Your task to perform on an android device: toggle pop-ups in chrome Image 0: 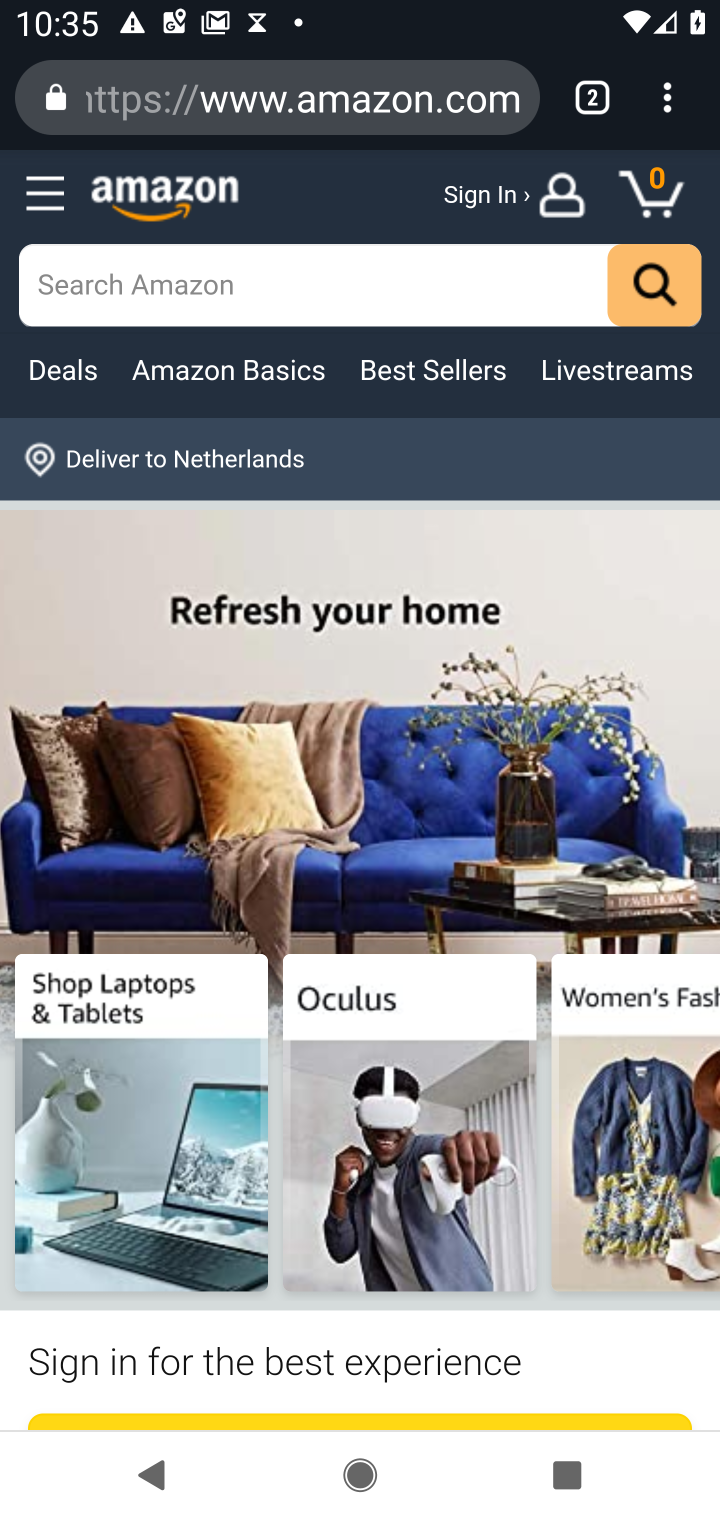
Step 0: click (661, 95)
Your task to perform on an android device: toggle pop-ups in chrome Image 1: 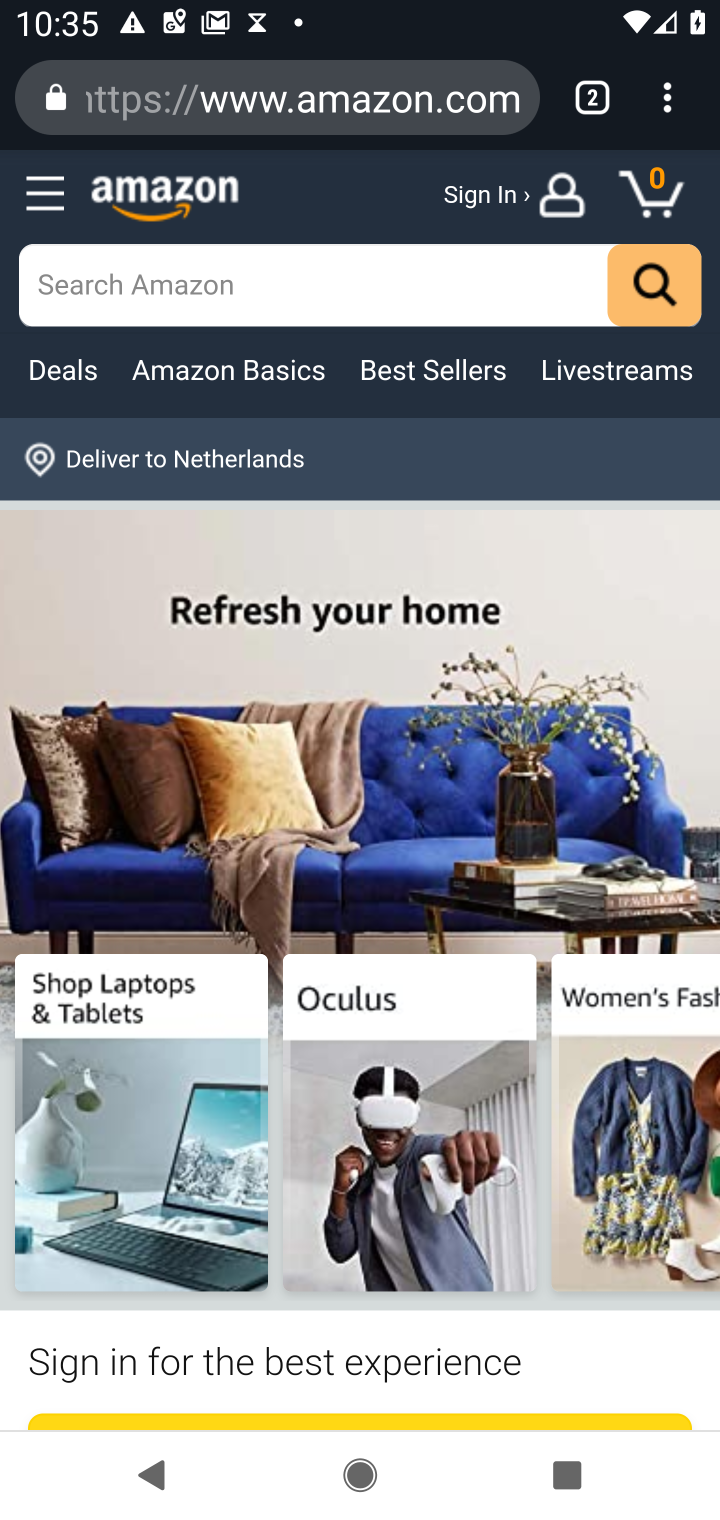
Step 1: click (672, 88)
Your task to perform on an android device: toggle pop-ups in chrome Image 2: 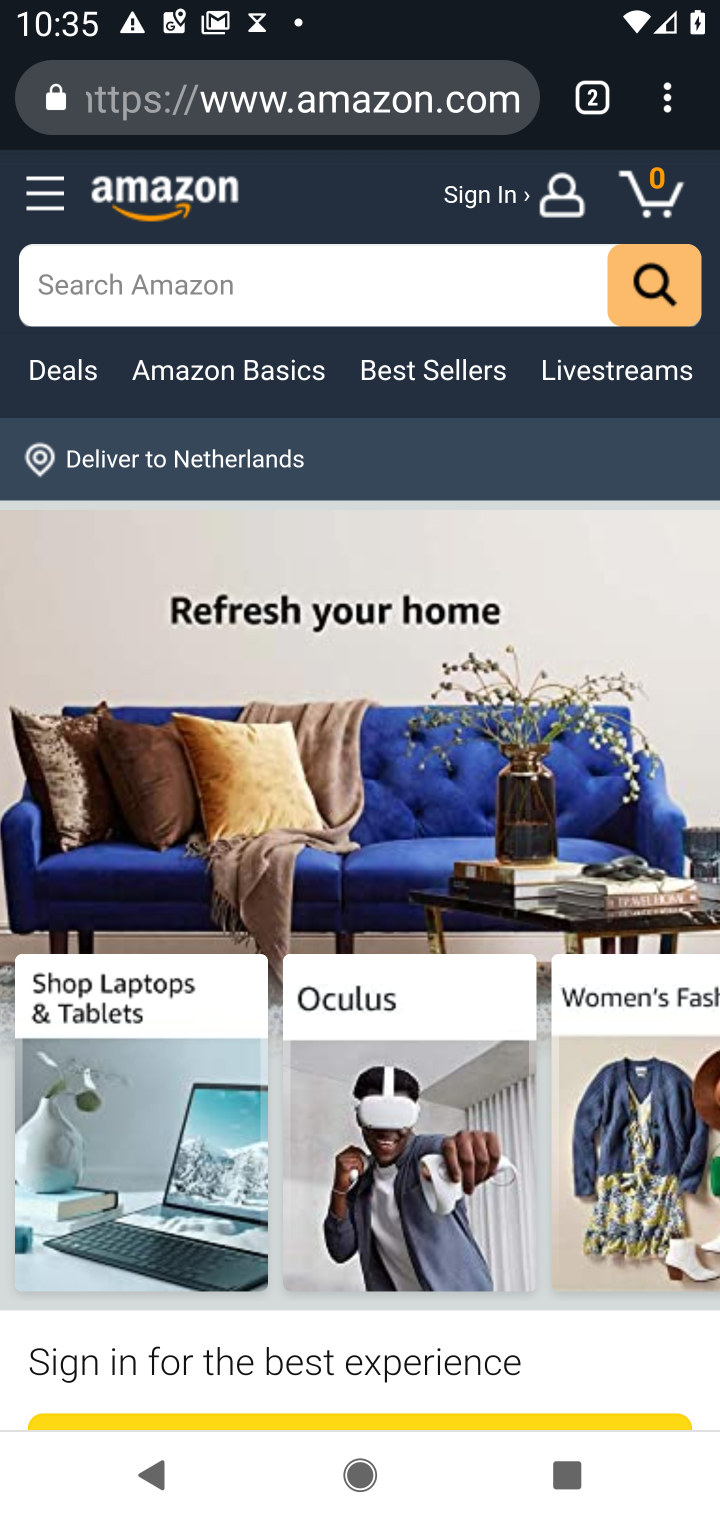
Step 2: drag from (683, 86) to (361, 1179)
Your task to perform on an android device: toggle pop-ups in chrome Image 3: 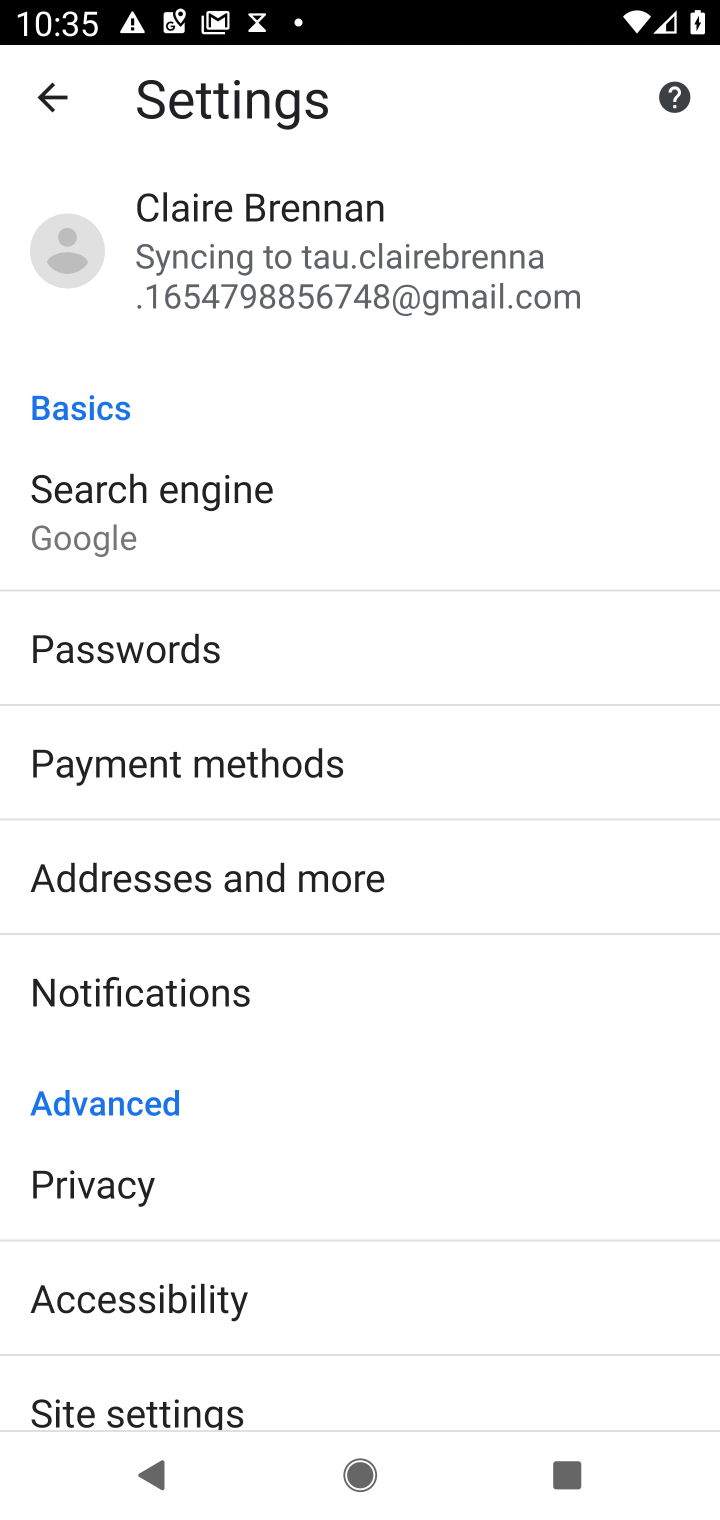
Step 3: click (352, 1382)
Your task to perform on an android device: toggle pop-ups in chrome Image 4: 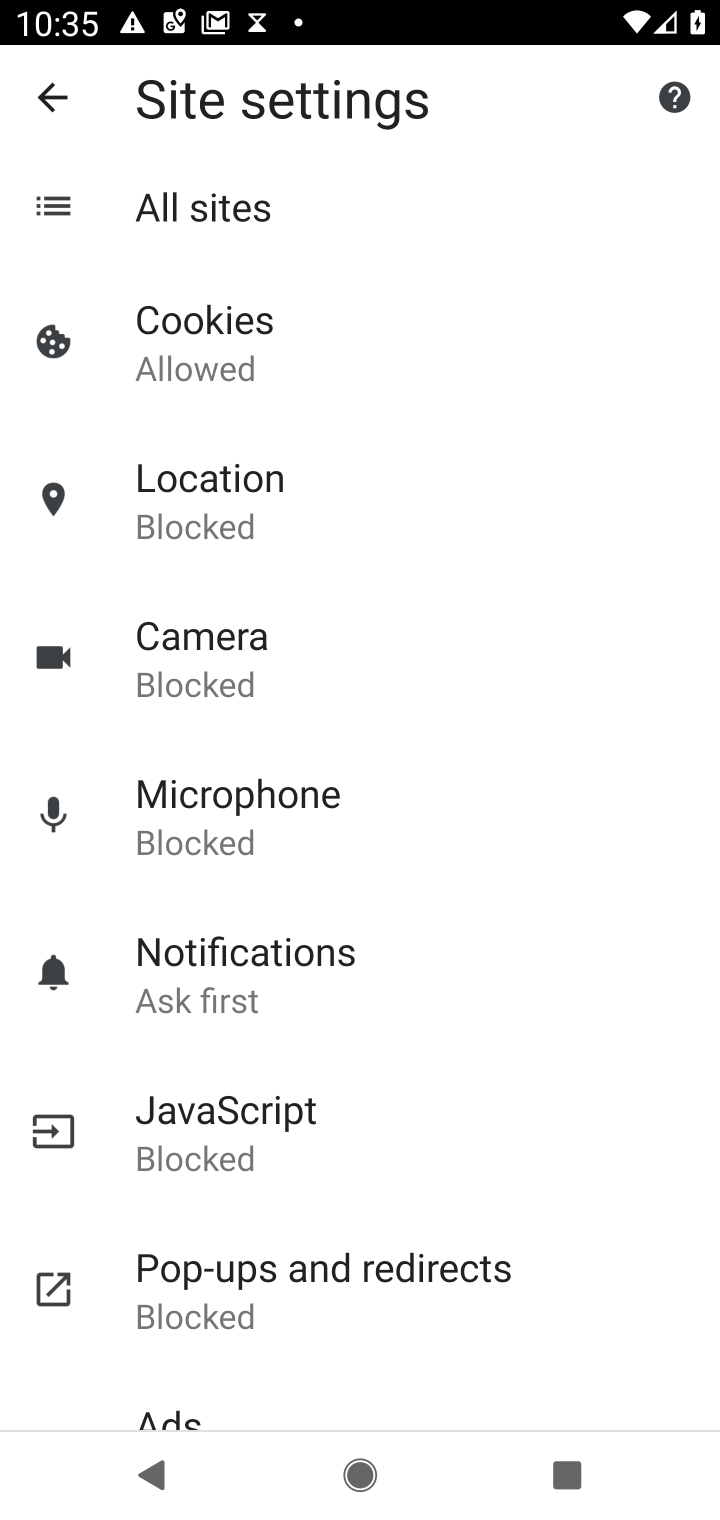
Step 4: click (341, 1254)
Your task to perform on an android device: toggle pop-ups in chrome Image 5: 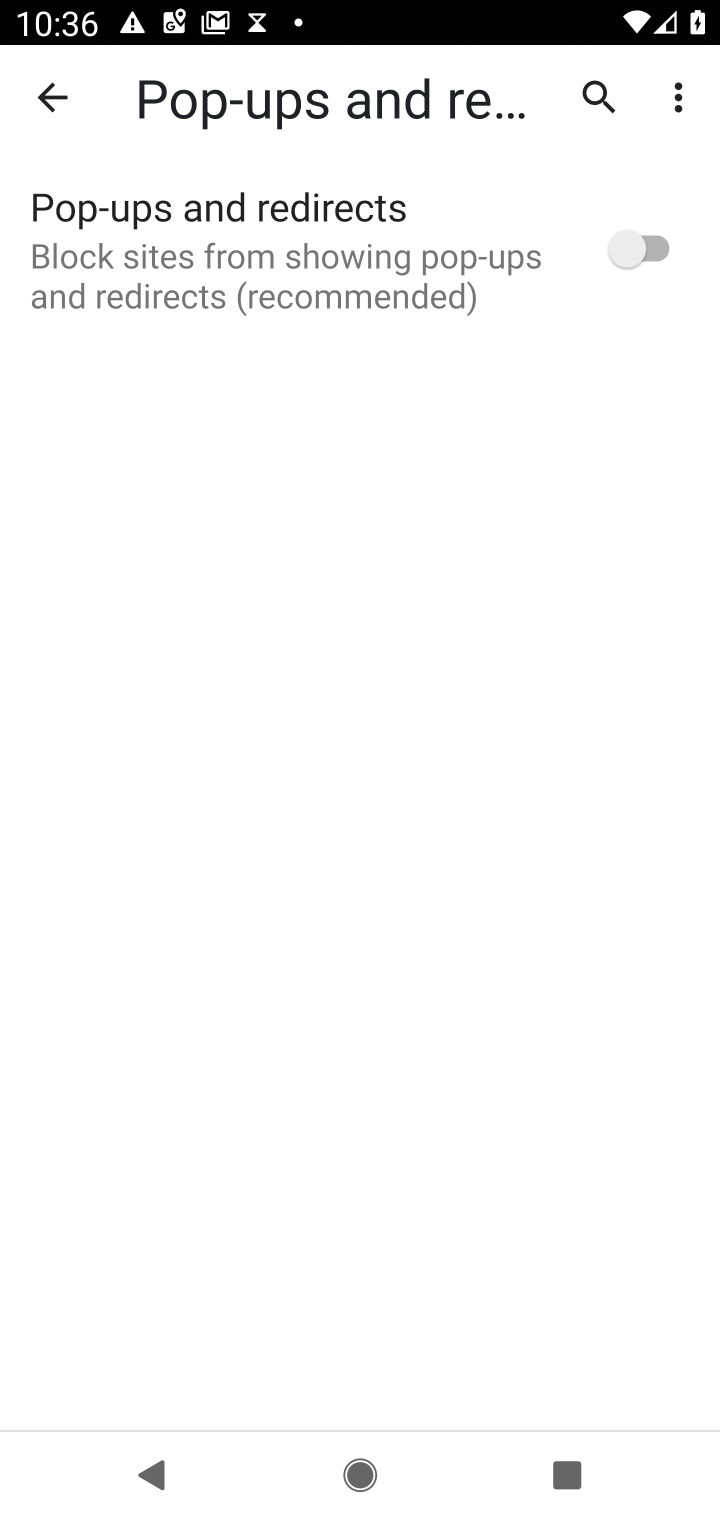
Step 5: click (653, 237)
Your task to perform on an android device: toggle pop-ups in chrome Image 6: 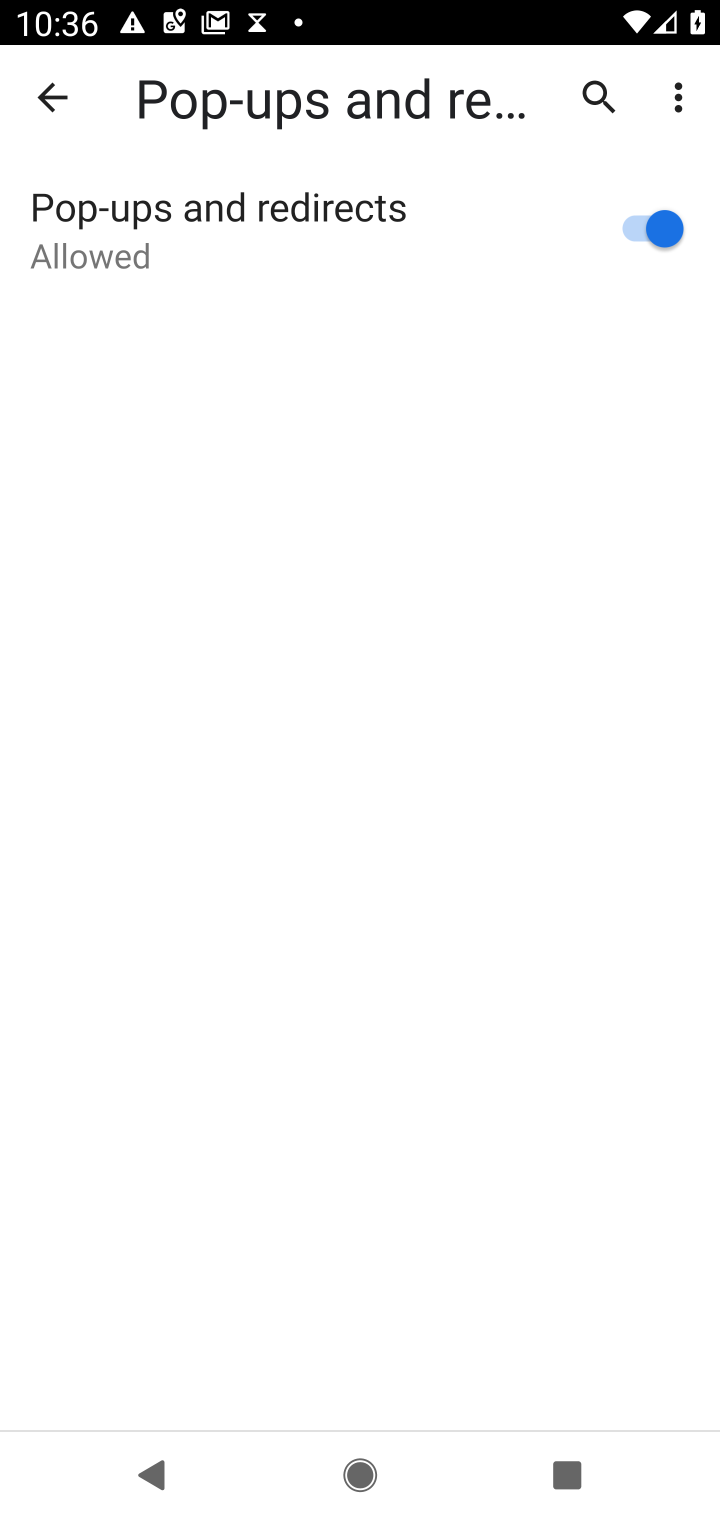
Step 6: task complete